Your task to perform on an android device: turn vacation reply on in the gmail app Image 0: 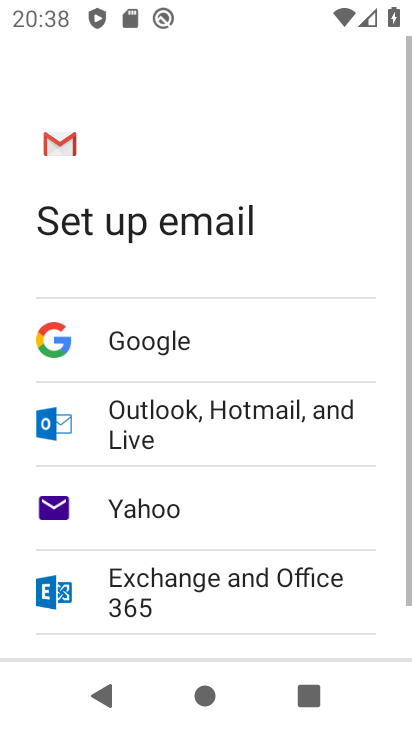
Step 0: press home button
Your task to perform on an android device: turn vacation reply on in the gmail app Image 1: 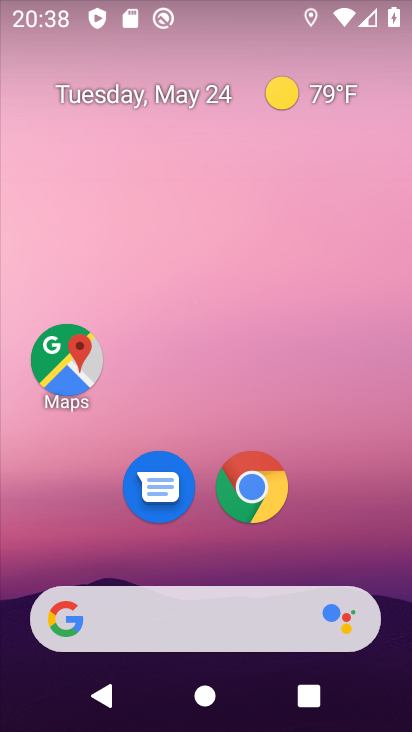
Step 1: drag from (307, 554) to (324, 66)
Your task to perform on an android device: turn vacation reply on in the gmail app Image 2: 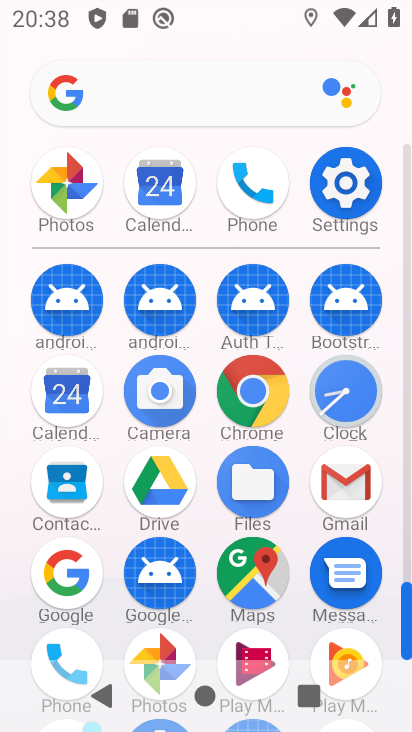
Step 2: click (360, 483)
Your task to perform on an android device: turn vacation reply on in the gmail app Image 3: 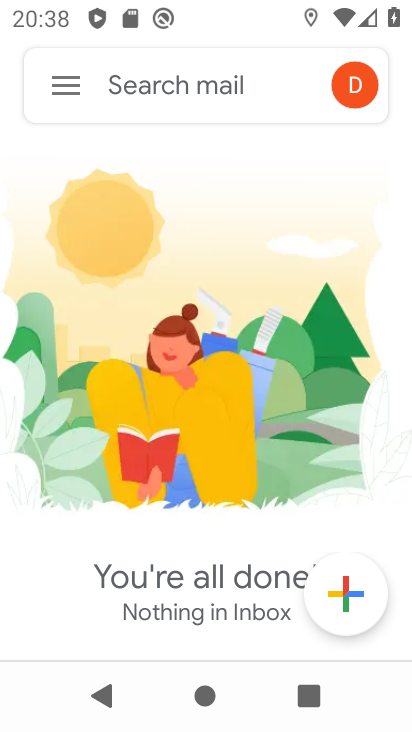
Step 3: click (49, 81)
Your task to perform on an android device: turn vacation reply on in the gmail app Image 4: 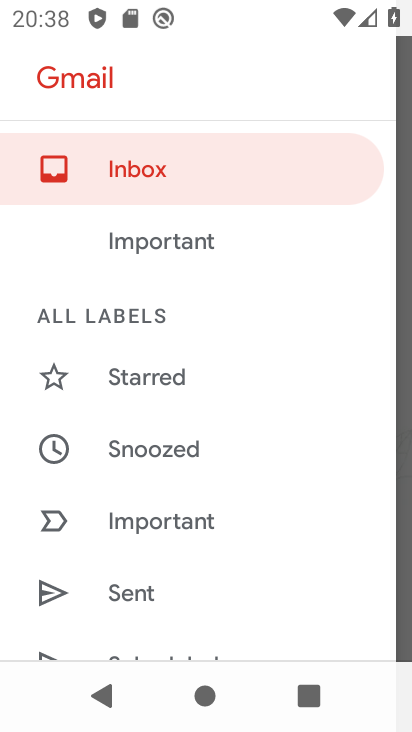
Step 4: drag from (280, 579) to (329, 121)
Your task to perform on an android device: turn vacation reply on in the gmail app Image 5: 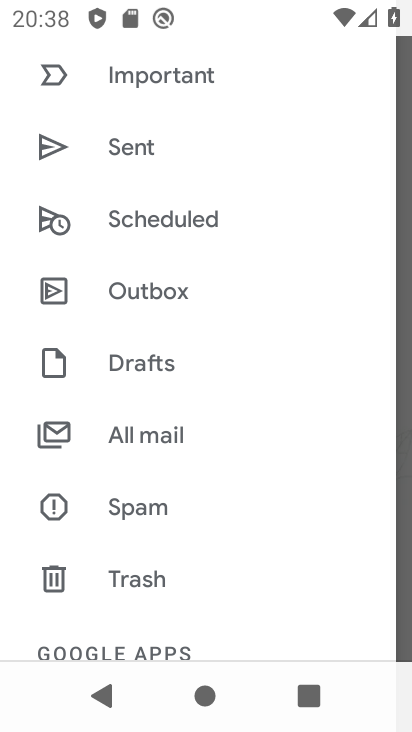
Step 5: drag from (287, 565) to (296, 200)
Your task to perform on an android device: turn vacation reply on in the gmail app Image 6: 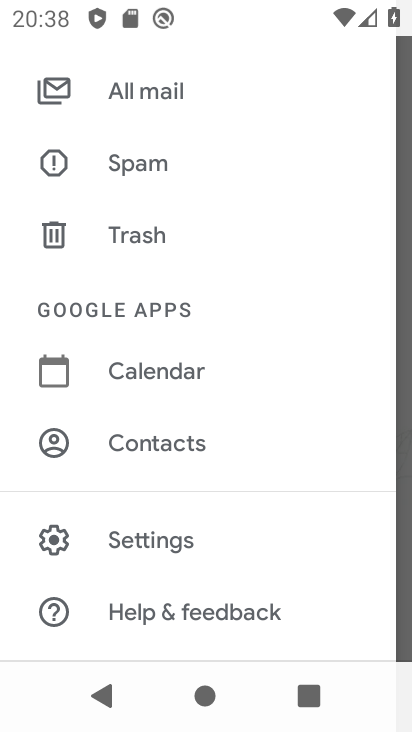
Step 6: click (166, 536)
Your task to perform on an android device: turn vacation reply on in the gmail app Image 7: 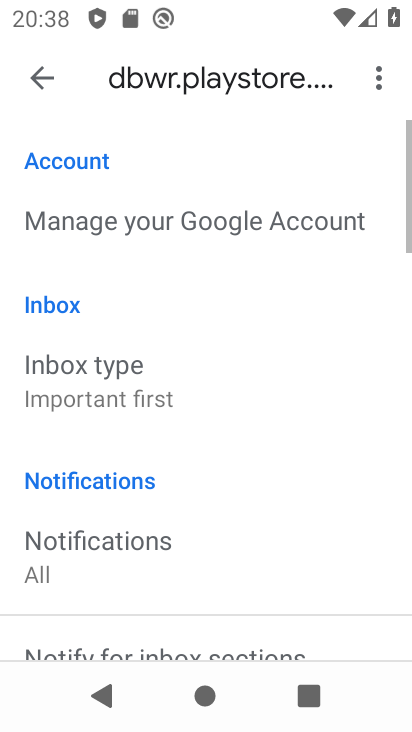
Step 7: drag from (298, 570) to (302, 187)
Your task to perform on an android device: turn vacation reply on in the gmail app Image 8: 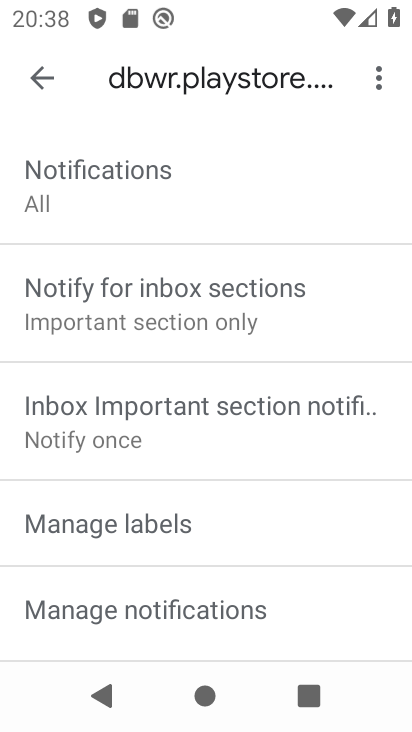
Step 8: drag from (348, 601) to (361, 198)
Your task to perform on an android device: turn vacation reply on in the gmail app Image 9: 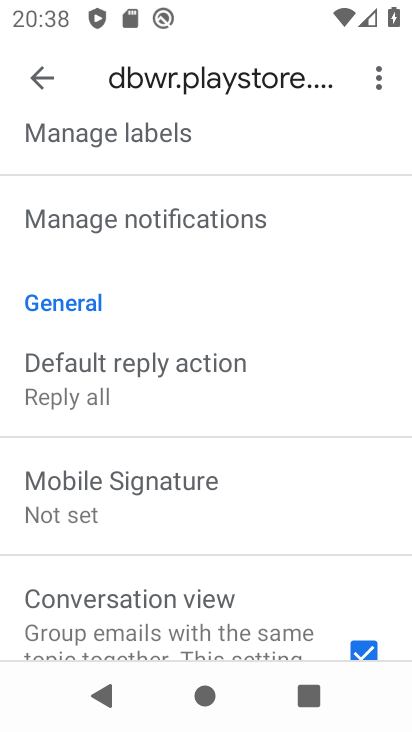
Step 9: drag from (294, 555) to (316, 205)
Your task to perform on an android device: turn vacation reply on in the gmail app Image 10: 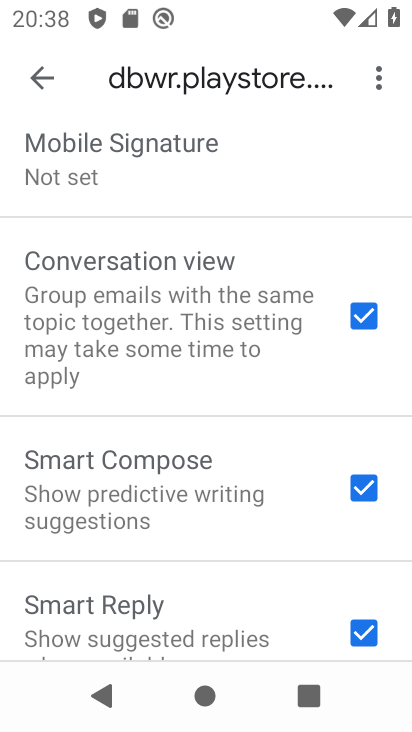
Step 10: drag from (261, 545) to (294, 207)
Your task to perform on an android device: turn vacation reply on in the gmail app Image 11: 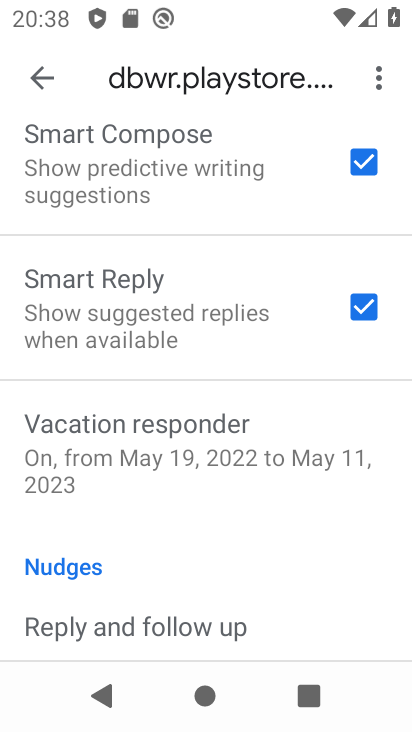
Step 11: click (195, 450)
Your task to perform on an android device: turn vacation reply on in the gmail app Image 12: 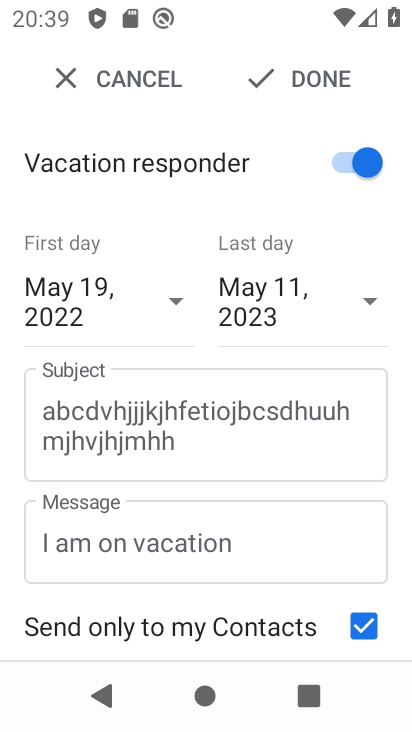
Step 12: click (341, 83)
Your task to perform on an android device: turn vacation reply on in the gmail app Image 13: 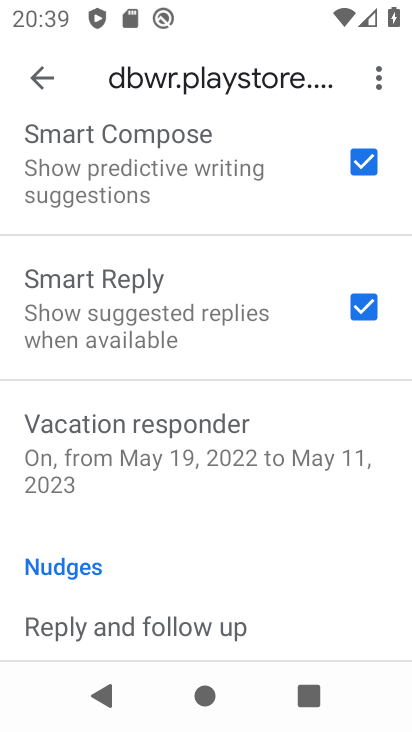
Step 13: task complete